Your task to perform on an android device: check the backup settings in the google photos Image 0: 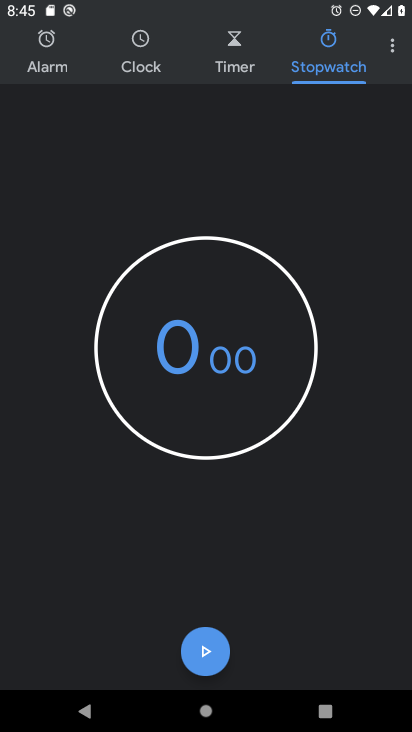
Step 0: press home button
Your task to perform on an android device: check the backup settings in the google photos Image 1: 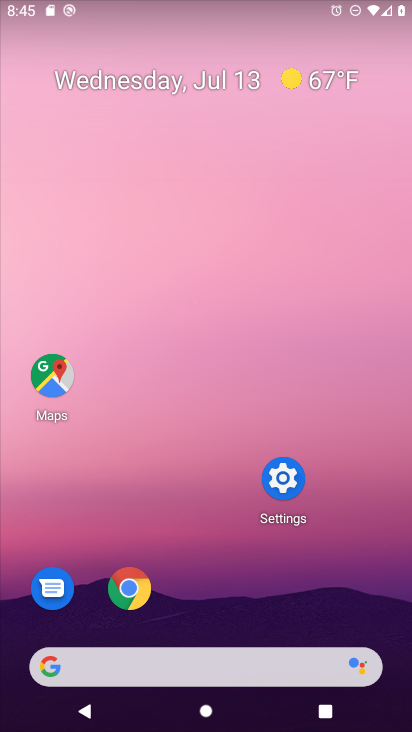
Step 1: drag from (269, 685) to (267, 262)
Your task to perform on an android device: check the backup settings in the google photos Image 2: 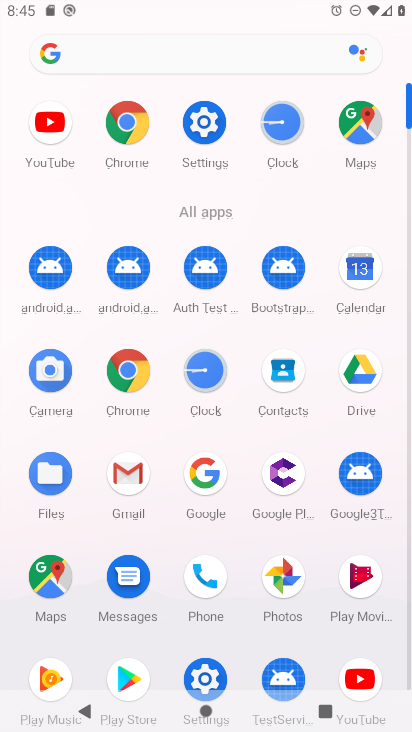
Step 2: click (284, 581)
Your task to perform on an android device: check the backup settings in the google photos Image 3: 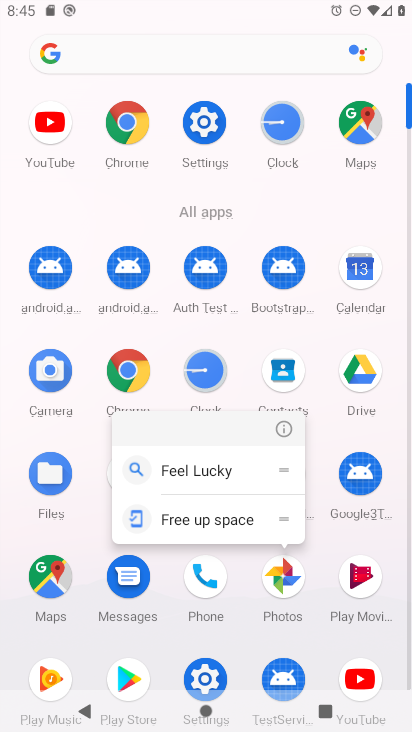
Step 3: click (280, 592)
Your task to perform on an android device: check the backup settings in the google photos Image 4: 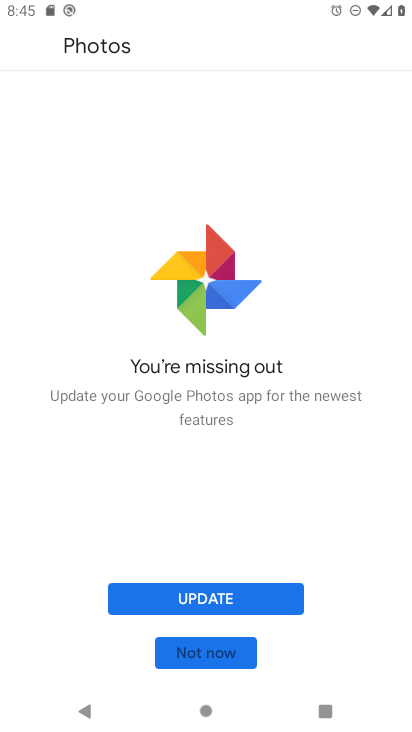
Step 4: click (186, 599)
Your task to perform on an android device: check the backup settings in the google photos Image 5: 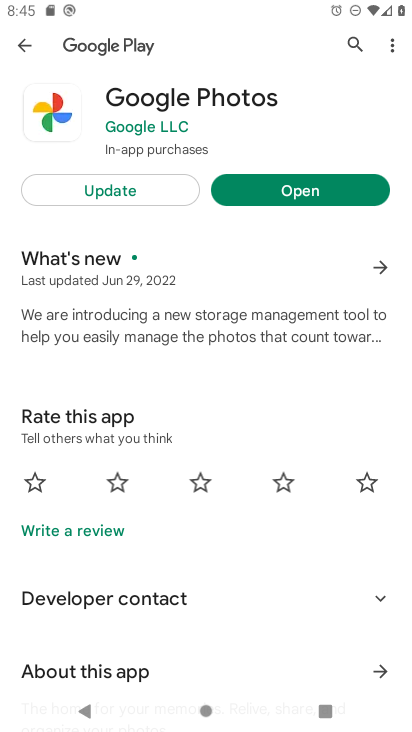
Step 5: click (100, 188)
Your task to perform on an android device: check the backup settings in the google photos Image 6: 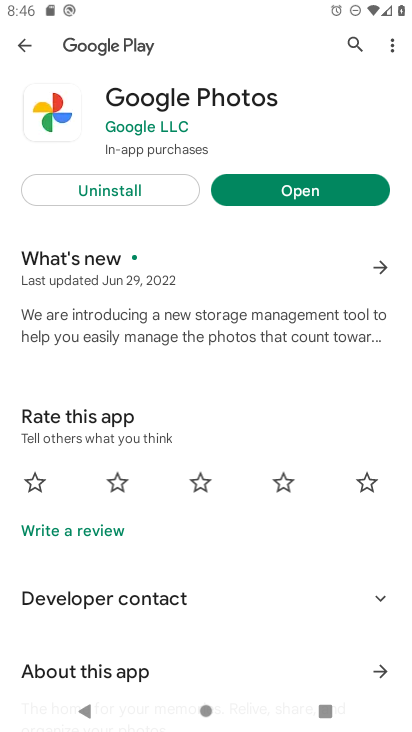
Step 6: click (269, 199)
Your task to perform on an android device: check the backup settings in the google photos Image 7: 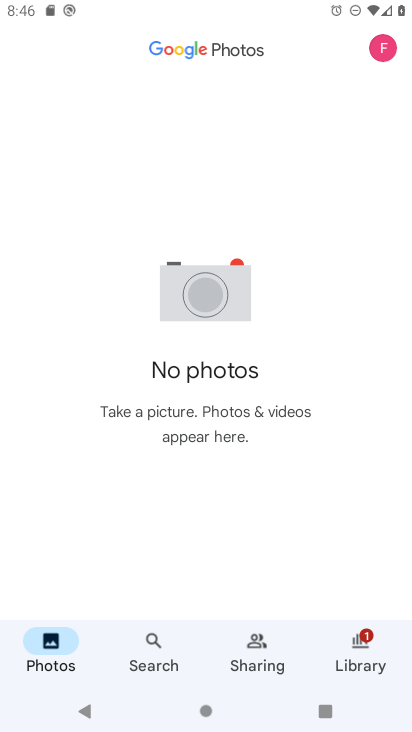
Step 7: click (381, 48)
Your task to perform on an android device: check the backup settings in the google photos Image 8: 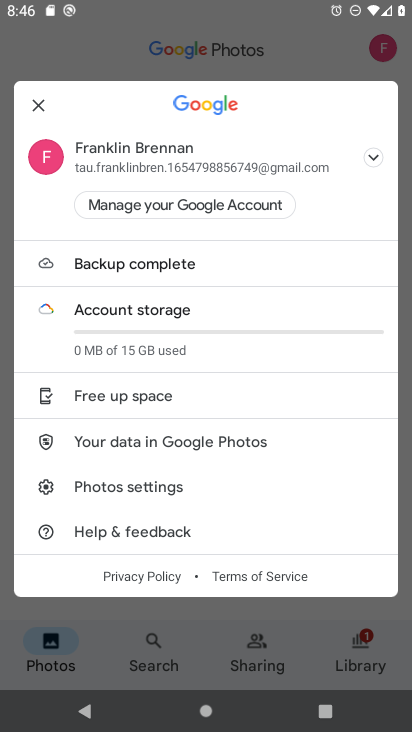
Step 8: click (110, 489)
Your task to perform on an android device: check the backup settings in the google photos Image 9: 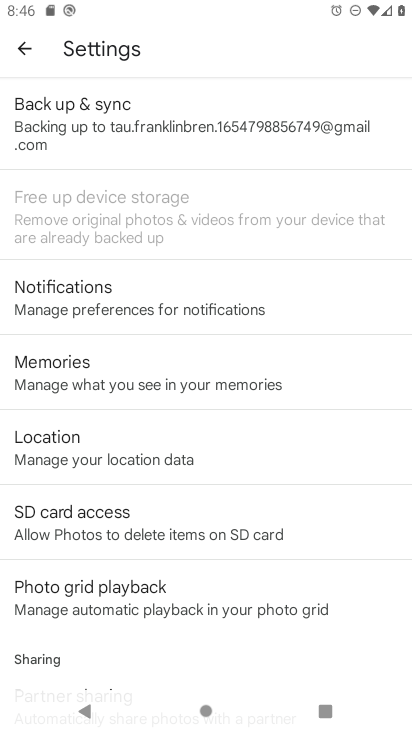
Step 9: click (125, 136)
Your task to perform on an android device: check the backup settings in the google photos Image 10: 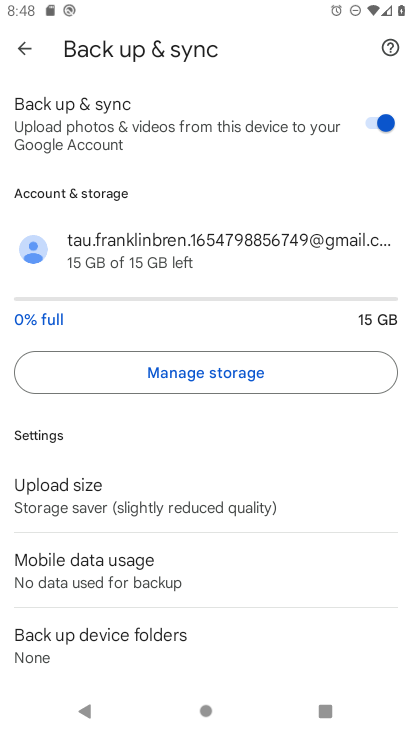
Step 10: task complete